Your task to perform on an android device: Turn off the flashlight Image 0: 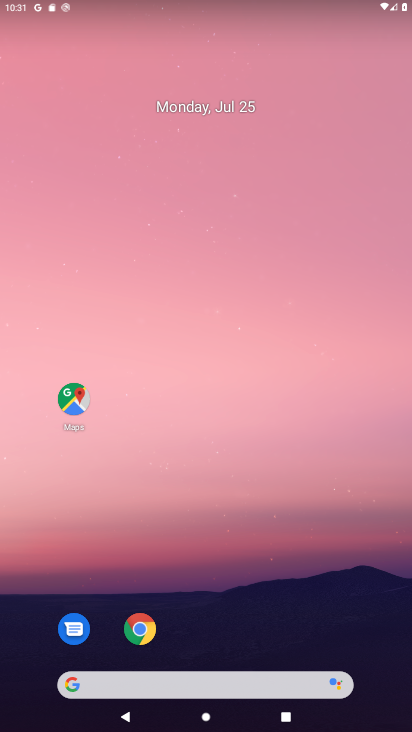
Step 0: drag from (274, 383) to (272, 23)
Your task to perform on an android device: Turn off the flashlight Image 1: 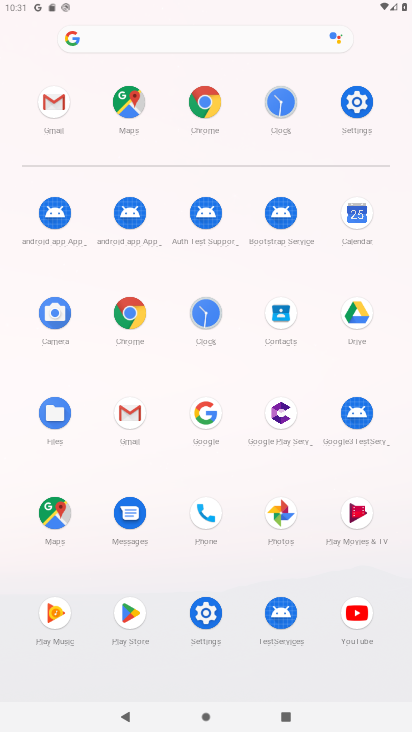
Step 1: click (357, 111)
Your task to perform on an android device: Turn off the flashlight Image 2: 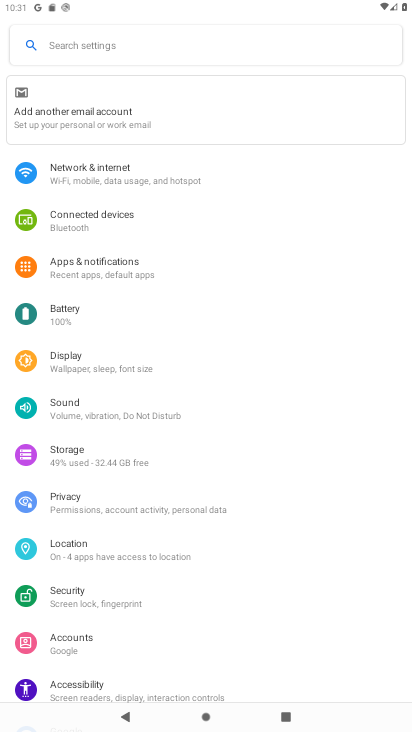
Step 2: task complete